Your task to perform on an android device: Is it going to rain tomorrow? Image 0: 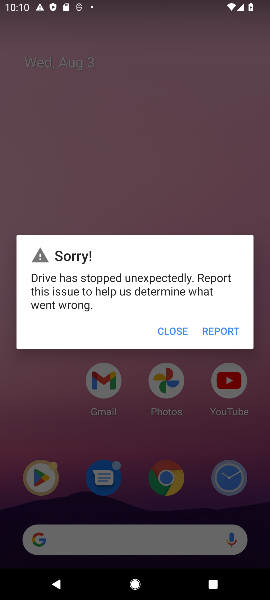
Step 0: press home button
Your task to perform on an android device: Is it going to rain tomorrow? Image 1: 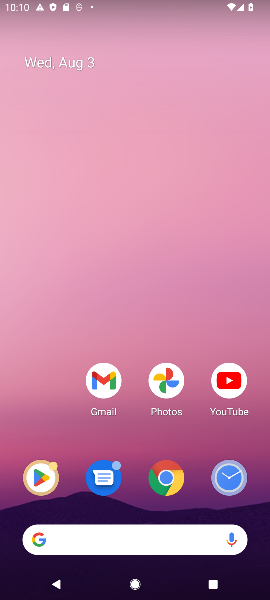
Step 1: drag from (85, 501) to (27, 6)
Your task to perform on an android device: Is it going to rain tomorrow? Image 2: 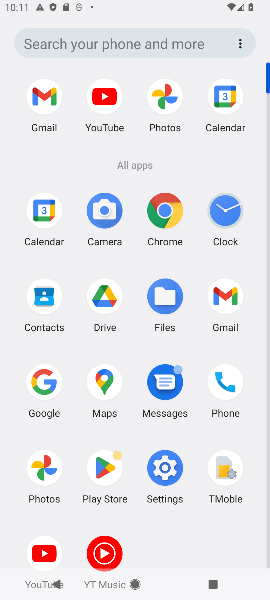
Step 2: click (119, 43)
Your task to perform on an android device: Is it going to rain tomorrow? Image 3: 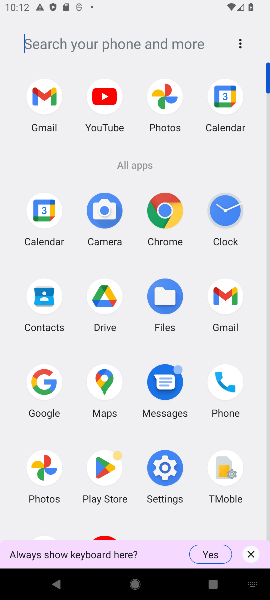
Step 3: type "Is it going to rain tomorrow?"
Your task to perform on an android device: Is it going to rain tomorrow? Image 4: 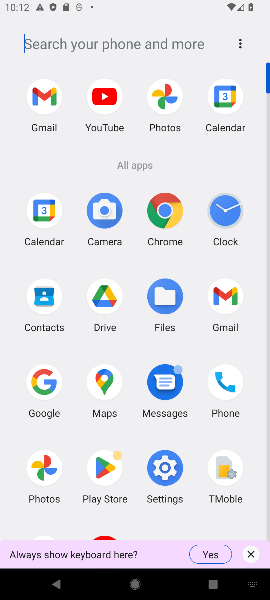
Step 4: click (70, 44)
Your task to perform on an android device: Is it going to rain tomorrow? Image 5: 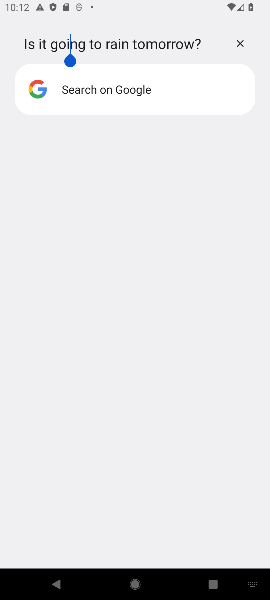
Step 5: click (53, 80)
Your task to perform on an android device: Is it going to rain tomorrow? Image 6: 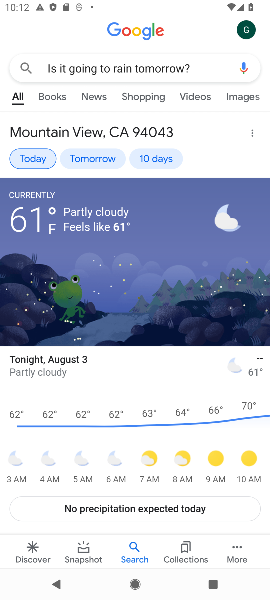
Step 6: task complete